Your task to perform on an android device: Open Youtube and go to the subscriptions tab Image 0: 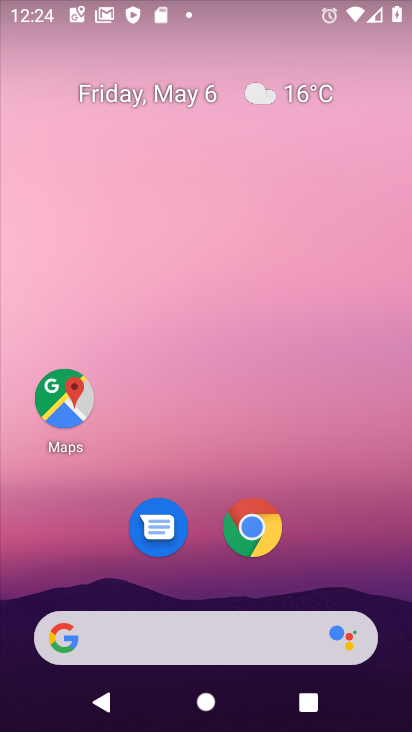
Step 0: drag from (322, 540) to (75, 119)
Your task to perform on an android device: Open Youtube and go to the subscriptions tab Image 1: 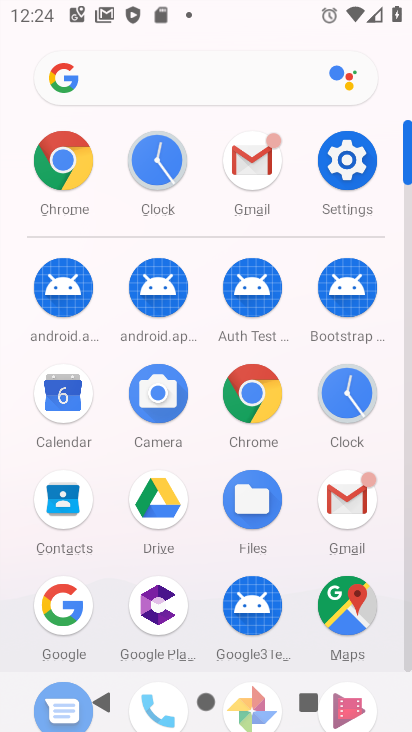
Step 1: drag from (196, 490) to (199, 129)
Your task to perform on an android device: Open Youtube and go to the subscriptions tab Image 2: 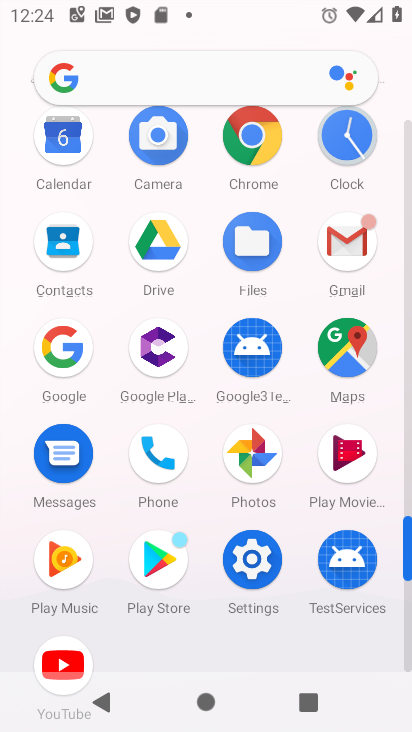
Step 2: click (64, 645)
Your task to perform on an android device: Open Youtube and go to the subscriptions tab Image 3: 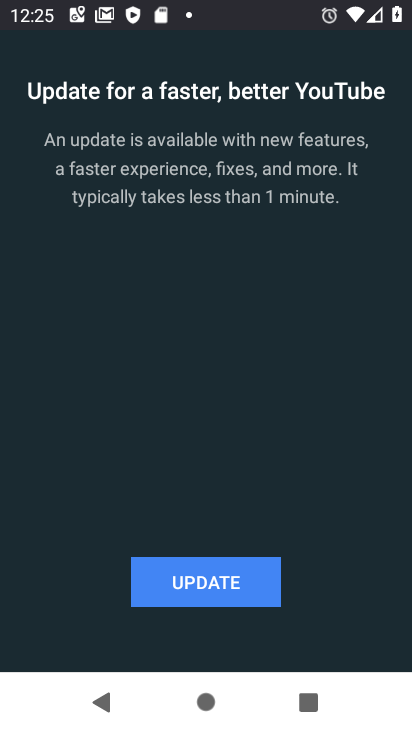
Step 3: click (176, 602)
Your task to perform on an android device: Open Youtube and go to the subscriptions tab Image 4: 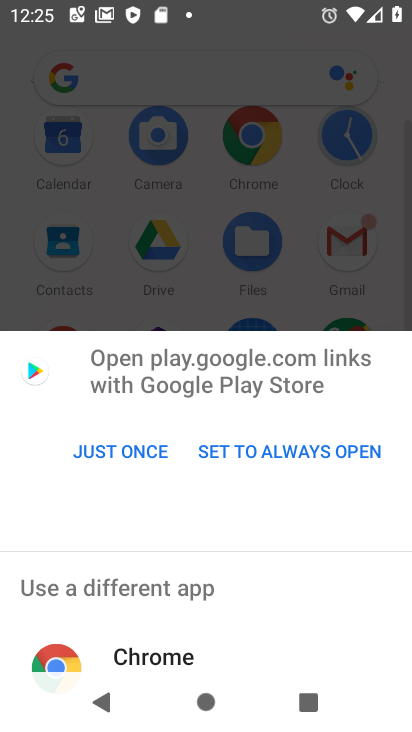
Step 4: click (124, 451)
Your task to perform on an android device: Open Youtube and go to the subscriptions tab Image 5: 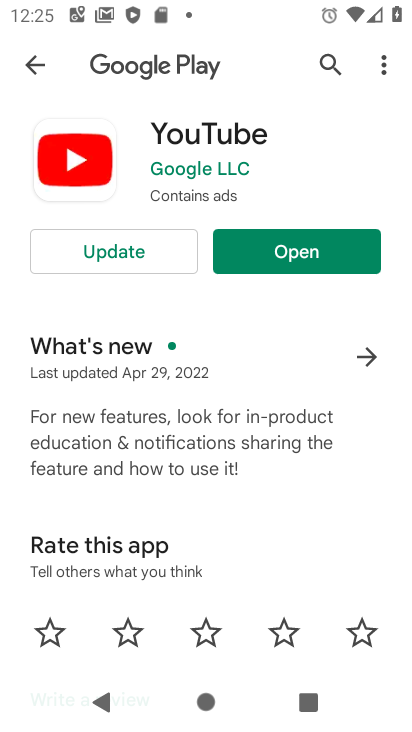
Step 5: click (82, 242)
Your task to perform on an android device: Open Youtube and go to the subscriptions tab Image 6: 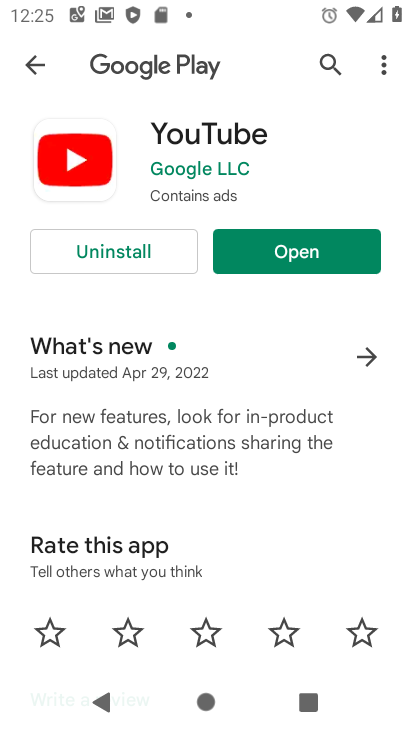
Step 6: click (318, 242)
Your task to perform on an android device: Open Youtube and go to the subscriptions tab Image 7: 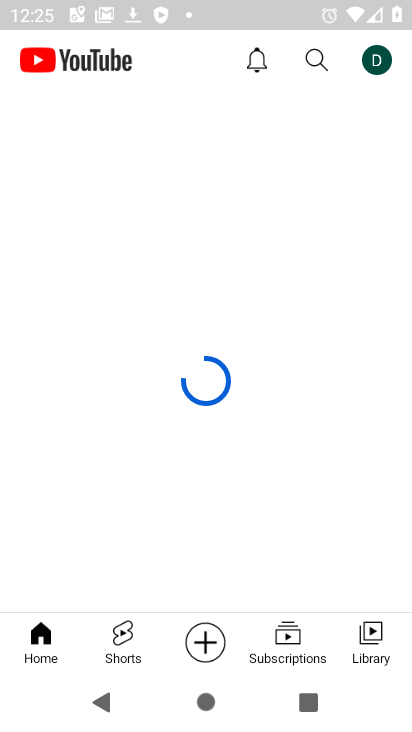
Step 7: click (283, 647)
Your task to perform on an android device: Open Youtube and go to the subscriptions tab Image 8: 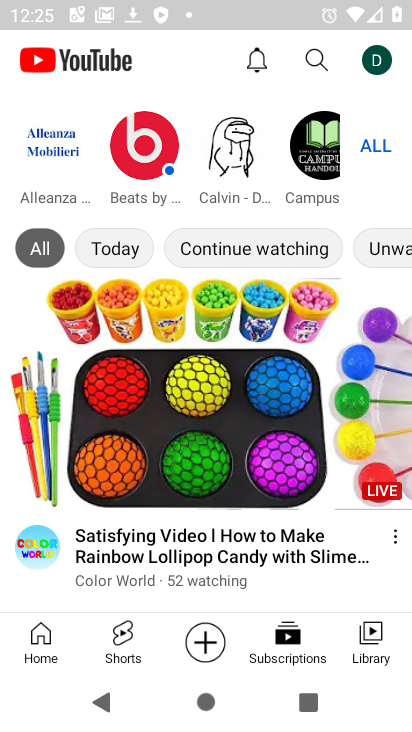
Step 8: task complete